Your task to perform on an android device: Open settings Image 0: 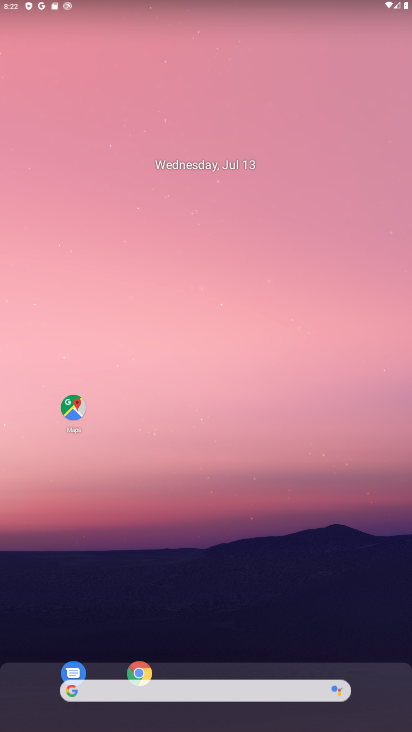
Step 0: drag from (255, 602) to (201, 102)
Your task to perform on an android device: Open settings Image 1: 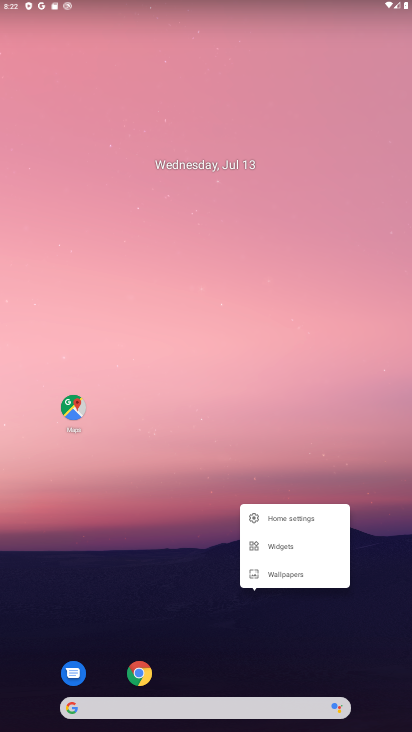
Step 1: drag from (386, 620) to (326, 233)
Your task to perform on an android device: Open settings Image 2: 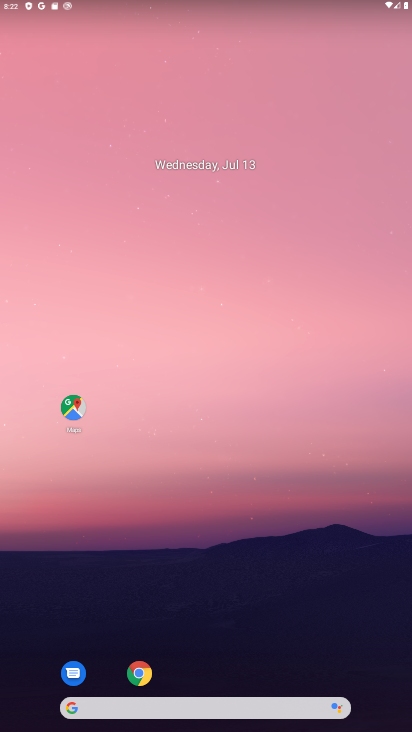
Step 2: drag from (326, 233) to (278, 71)
Your task to perform on an android device: Open settings Image 3: 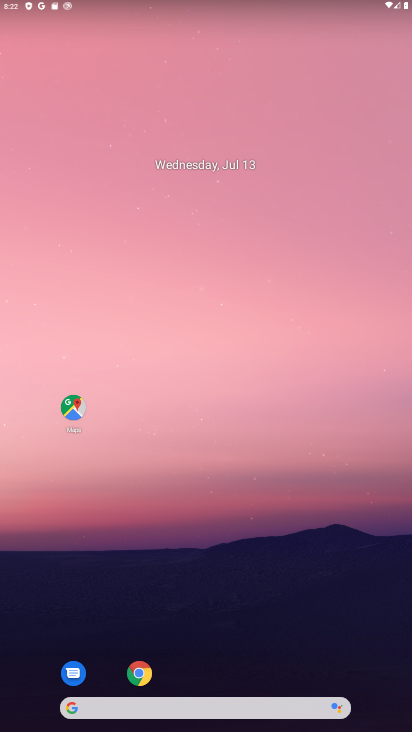
Step 3: drag from (376, 678) to (271, 355)
Your task to perform on an android device: Open settings Image 4: 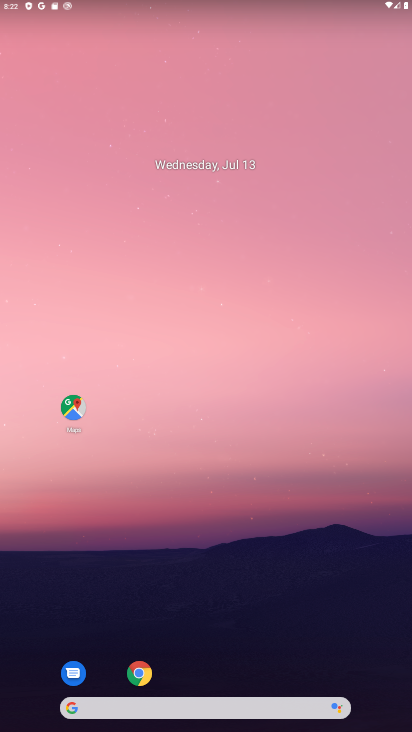
Step 4: drag from (302, 683) to (216, 65)
Your task to perform on an android device: Open settings Image 5: 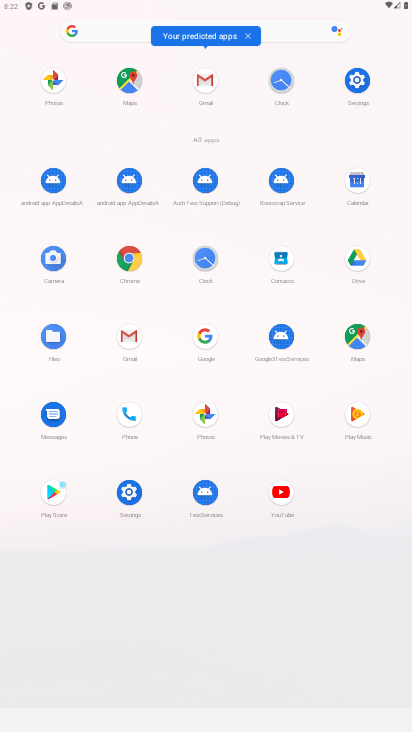
Step 5: click (354, 83)
Your task to perform on an android device: Open settings Image 6: 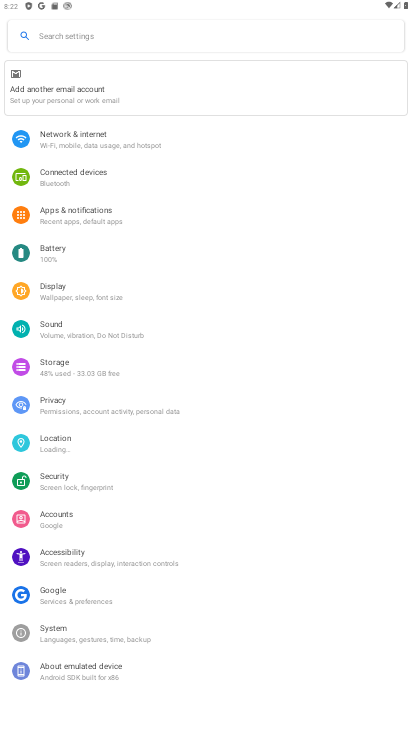
Step 6: task complete